Your task to perform on an android device: delete the emails in spam in the gmail app Image 0: 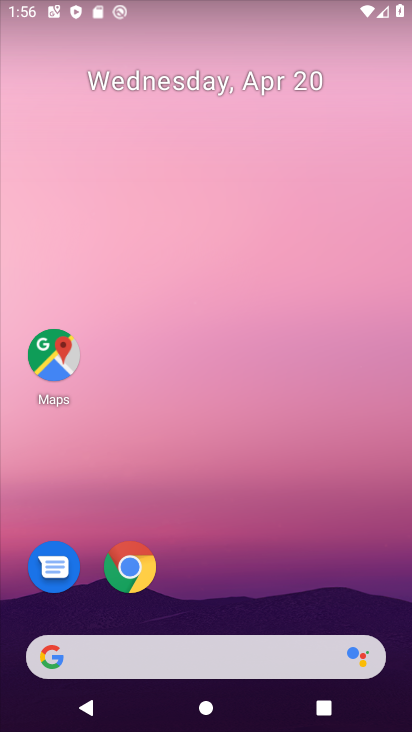
Step 0: click (135, 586)
Your task to perform on an android device: delete the emails in spam in the gmail app Image 1: 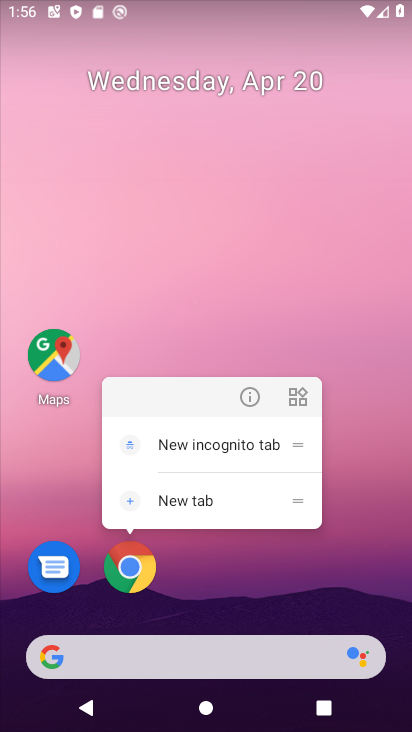
Step 1: click (121, 566)
Your task to perform on an android device: delete the emails in spam in the gmail app Image 2: 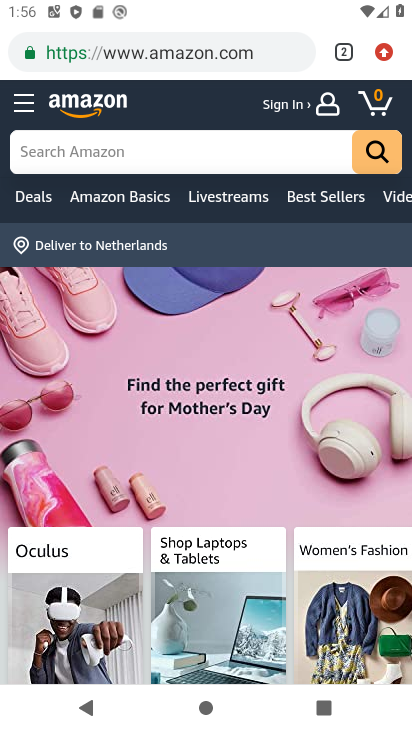
Step 2: press home button
Your task to perform on an android device: delete the emails in spam in the gmail app Image 3: 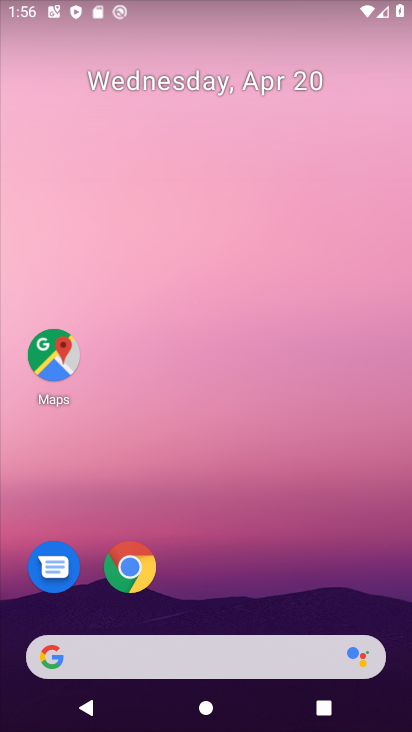
Step 3: drag from (257, 286) to (279, 110)
Your task to perform on an android device: delete the emails in spam in the gmail app Image 4: 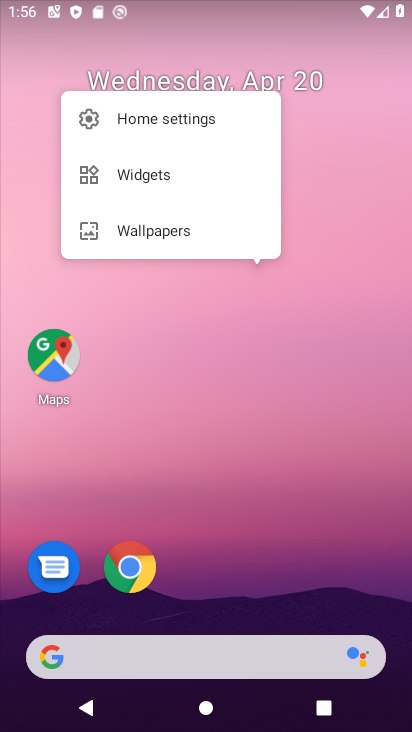
Step 4: drag from (253, 539) to (296, 144)
Your task to perform on an android device: delete the emails in spam in the gmail app Image 5: 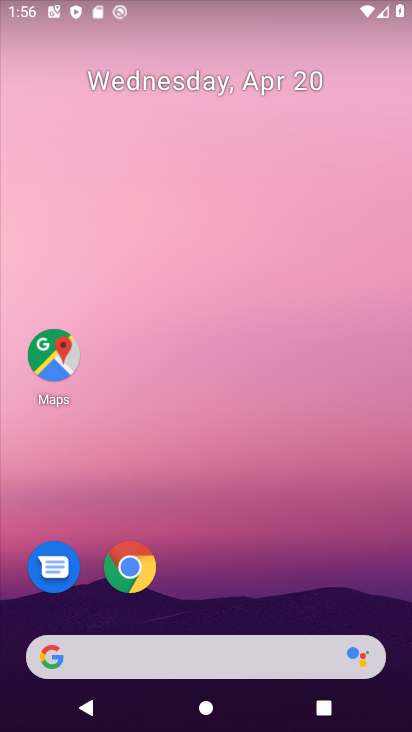
Step 5: drag from (225, 462) to (223, 177)
Your task to perform on an android device: delete the emails in spam in the gmail app Image 6: 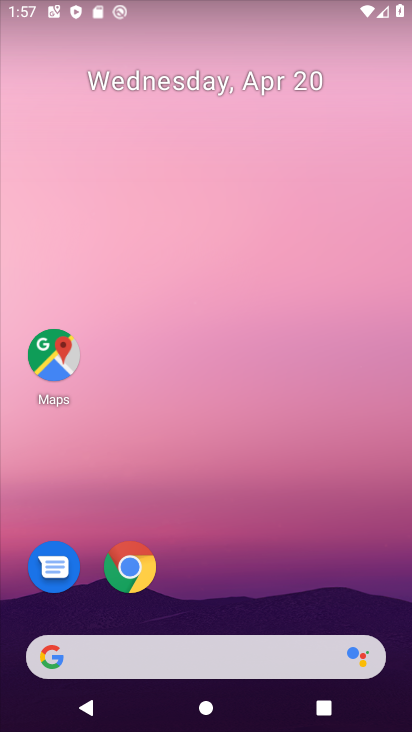
Step 6: drag from (234, 589) to (256, 148)
Your task to perform on an android device: delete the emails in spam in the gmail app Image 7: 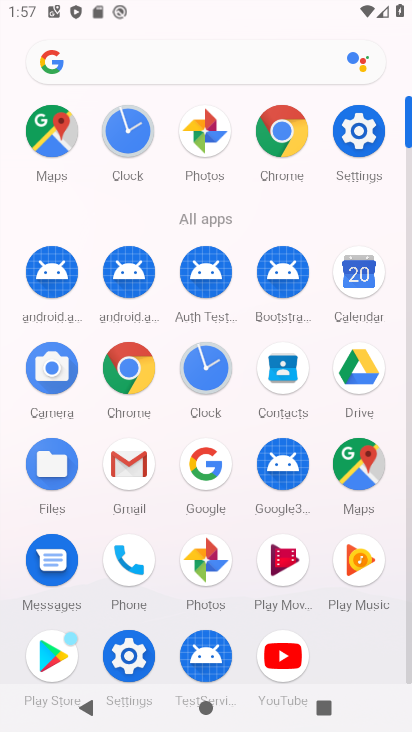
Step 7: click (125, 473)
Your task to perform on an android device: delete the emails in spam in the gmail app Image 8: 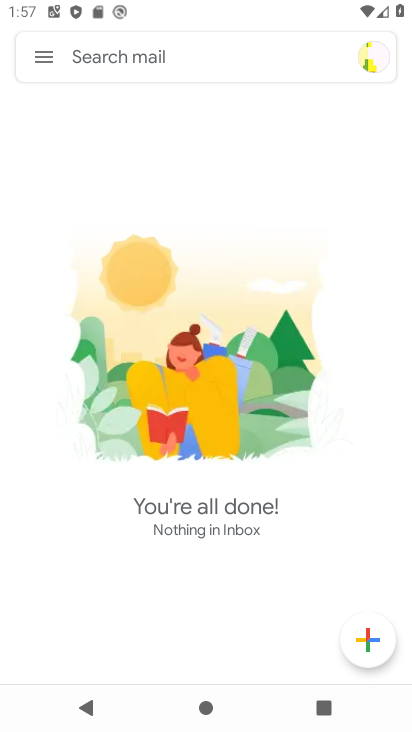
Step 8: click (43, 60)
Your task to perform on an android device: delete the emails in spam in the gmail app Image 9: 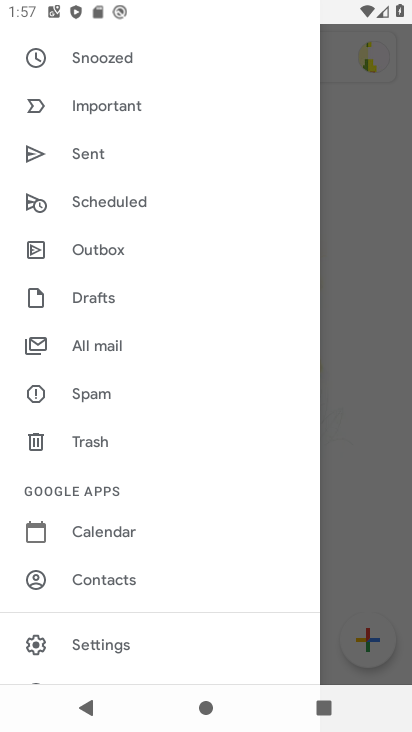
Step 9: click (115, 391)
Your task to perform on an android device: delete the emails in spam in the gmail app Image 10: 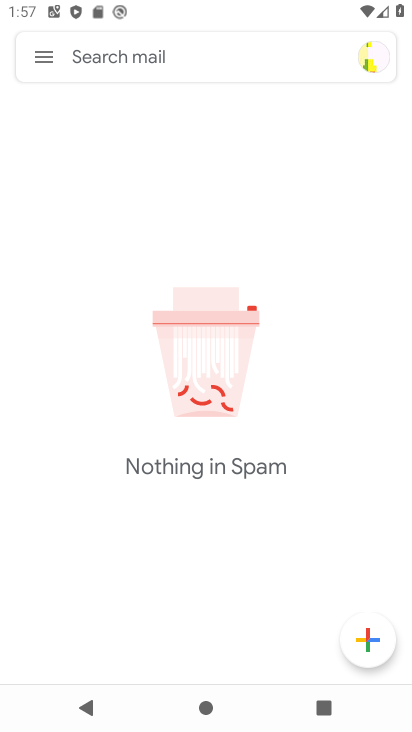
Step 10: task complete